Your task to perform on an android device: delete a single message in the gmail app Image 0: 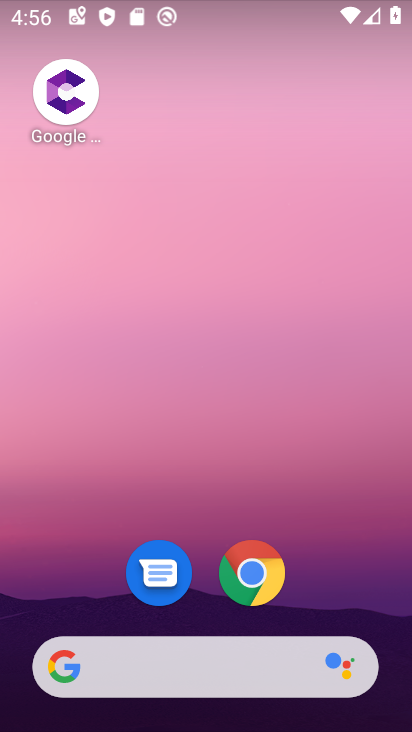
Step 0: click (264, 266)
Your task to perform on an android device: delete a single message in the gmail app Image 1: 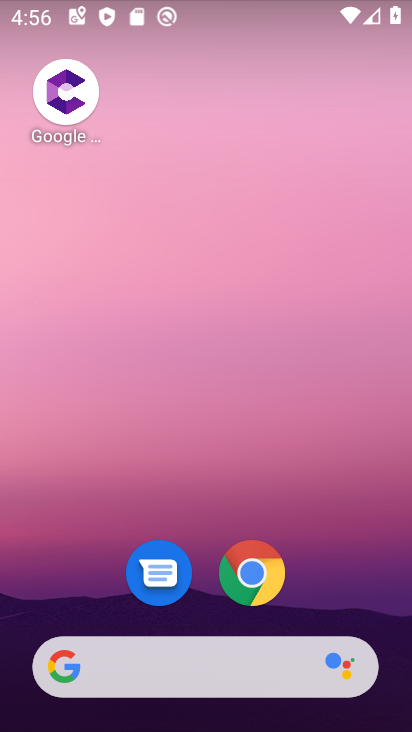
Step 1: drag from (214, 612) to (339, 191)
Your task to perform on an android device: delete a single message in the gmail app Image 2: 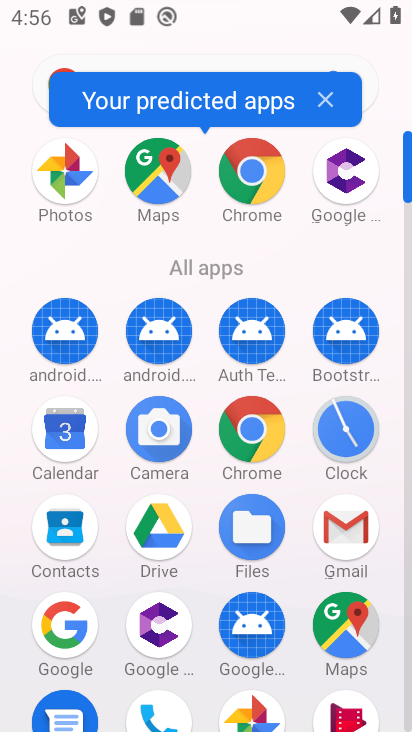
Step 2: click (356, 535)
Your task to perform on an android device: delete a single message in the gmail app Image 3: 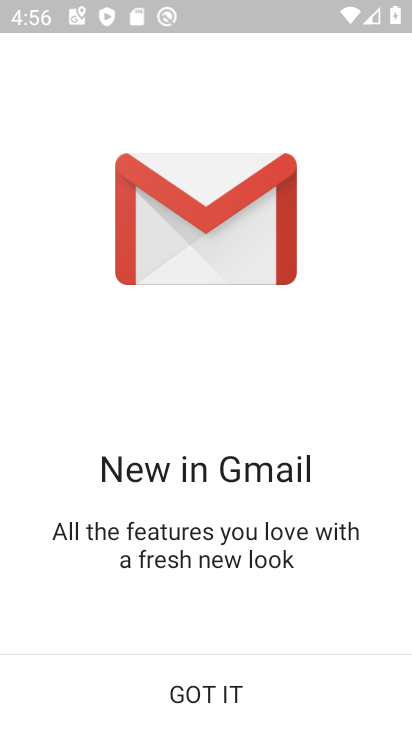
Step 3: click (213, 684)
Your task to perform on an android device: delete a single message in the gmail app Image 4: 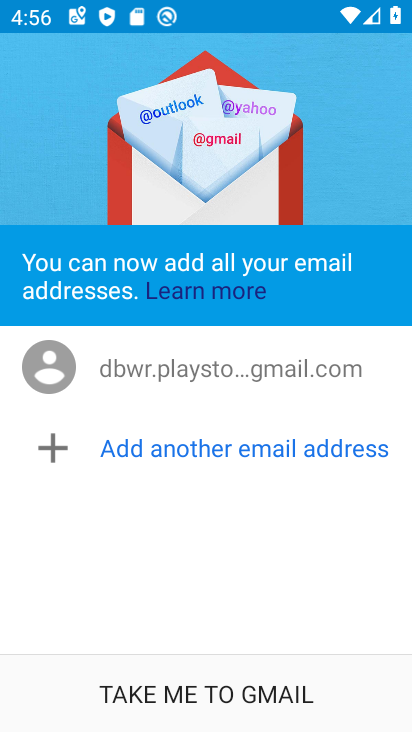
Step 4: click (228, 702)
Your task to perform on an android device: delete a single message in the gmail app Image 5: 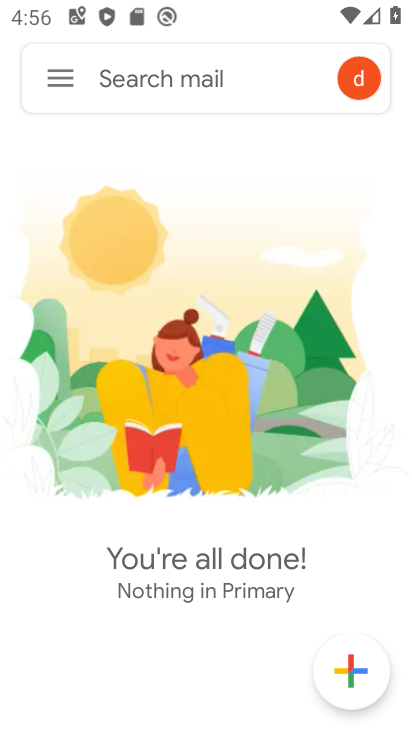
Step 5: click (56, 74)
Your task to perform on an android device: delete a single message in the gmail app Image 6: 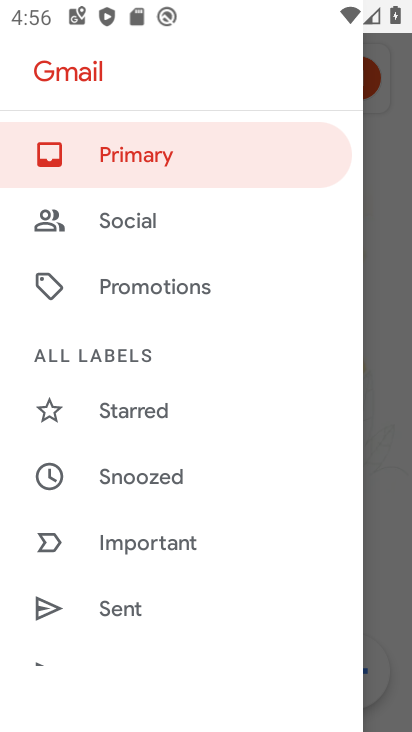
Step 6: drag from (160, 632) to (295, 327)
Your task to perform on an android device: delete a single message in the gmail app Image 7: 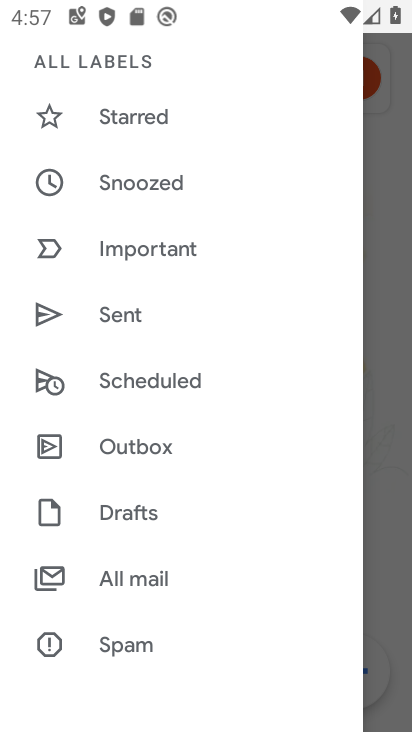
Step 7: click (156, 591)
Your task to perform on an android device: delete a single message in the gmail app Image 8: 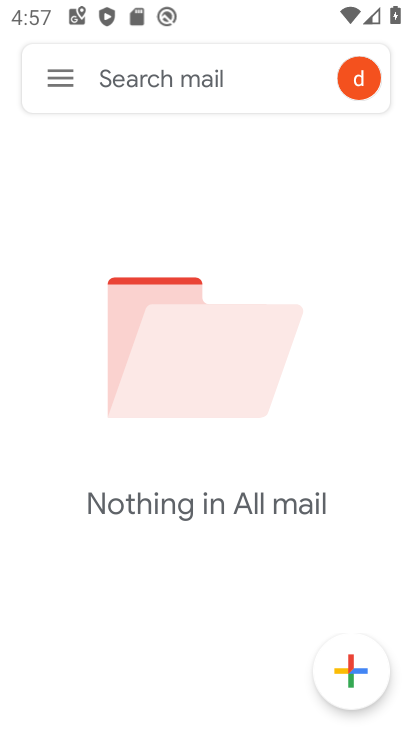
Step 8: task complete